Your task to perform on an android device: Open calendar and show me the second week of next month Image 0: 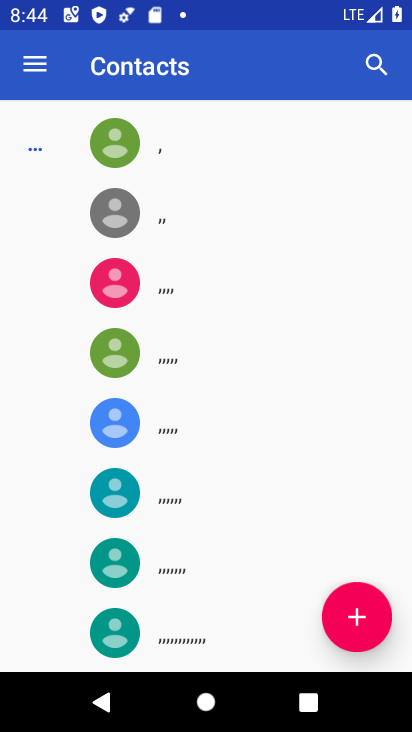
Step 0: press home button
Your task to perform on an android device: Open calendar and show me the second week of next month Image 1: 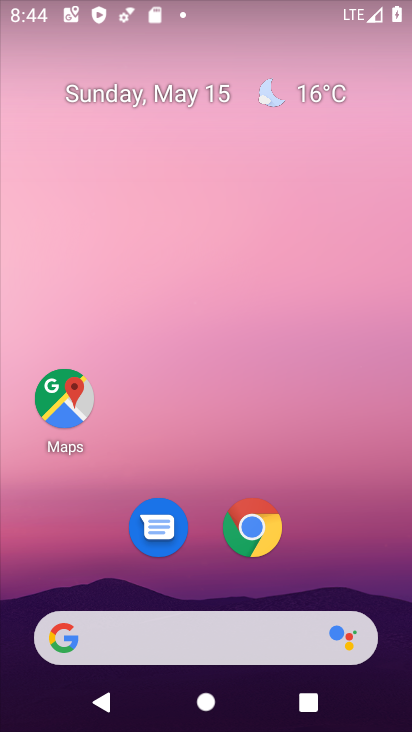
Step 1: drag from (377, 607) to (363, 26)
Your task to perform on an android device: Open calendar and show me the second week of next month Image 2: 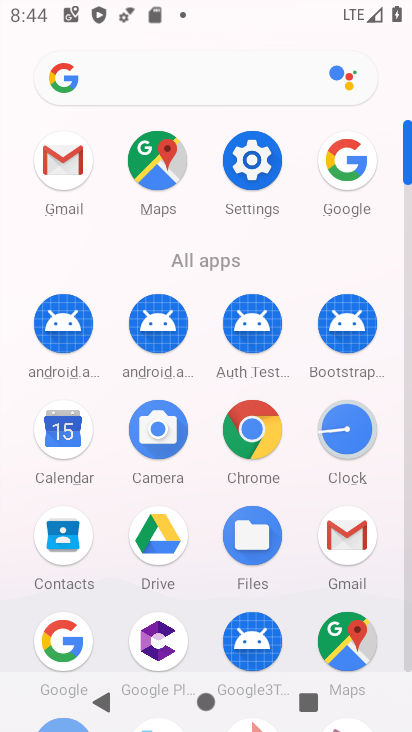
Step 2: click (65, 424)
Your task to perform on an android device: Open calendar and show me the second week of next month Image 3: 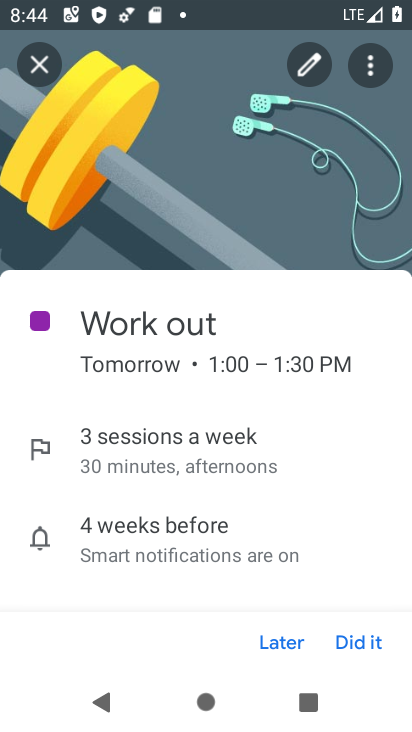
Step 3: click (41, 69)
Your task to perform on an android device: Open calendar and show me the second week of next month Image 4: 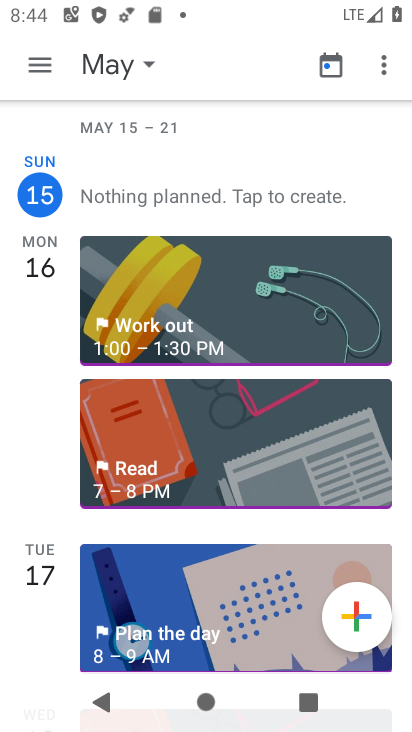
Step 4: click (157, 68)
Your task to perform on an android device: Open calendar and show me the second week of next month Image 5: 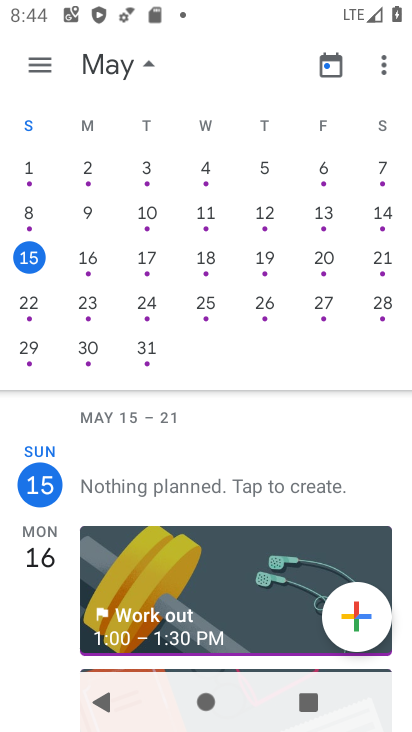
Step 5: drag from (356, 248) to (16, 276)
Your task to perform on an android device: Open calendar and show me the second week of next month Image 6: 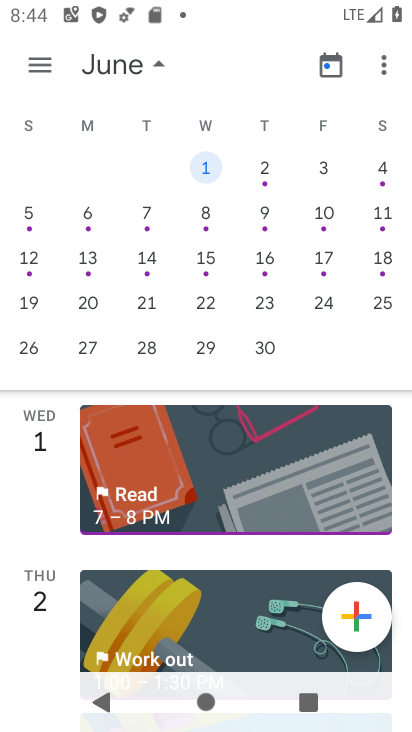
Step 6: click (32, 71)
Your task to perform on an android device: Open calendar and show me the second week of next month Image 7: 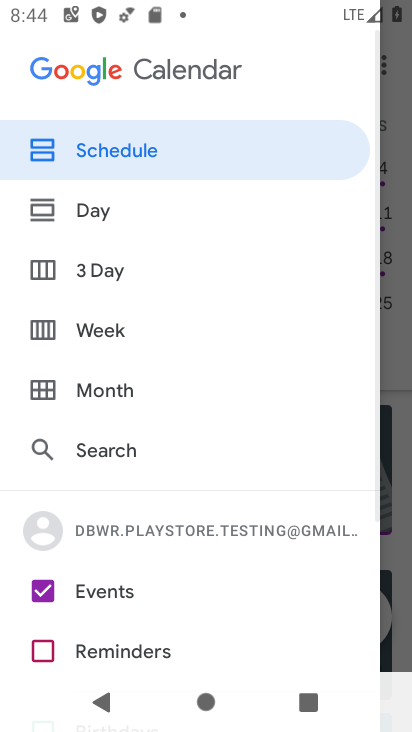
Step 7: click (85, 325)
Your task to perform on an android device: Open calendar and show me the second week of next month Image 8: 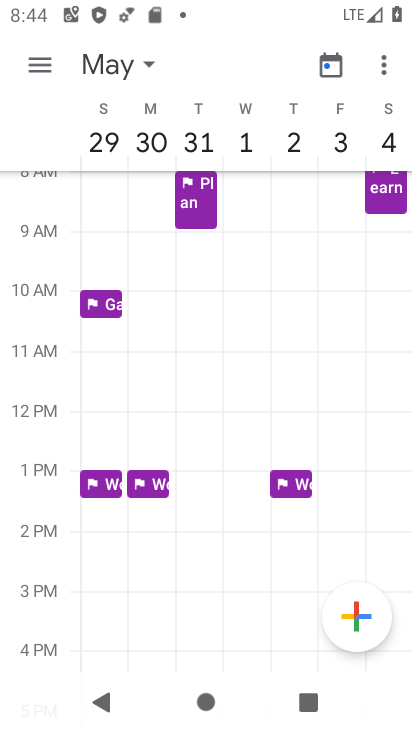
Step 8: task complete